Your task to perform on an android device: turn on priority inbox in the gmail app Image 0: 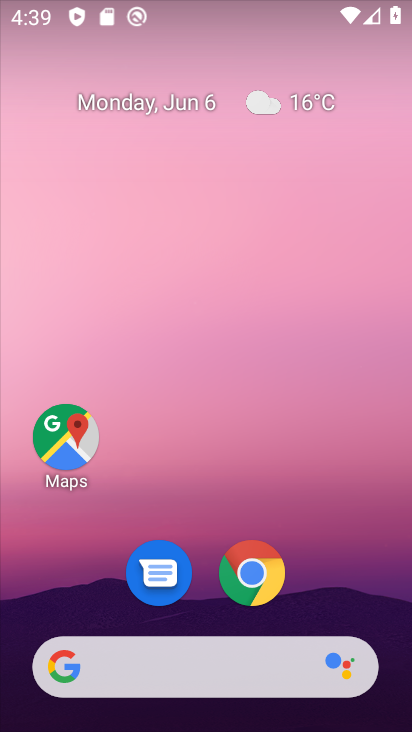
Step 0: drag from (346, 587) to (232, 34)
Your task to perform on an android device: turn on priority inbox in the gmail app Image 1: 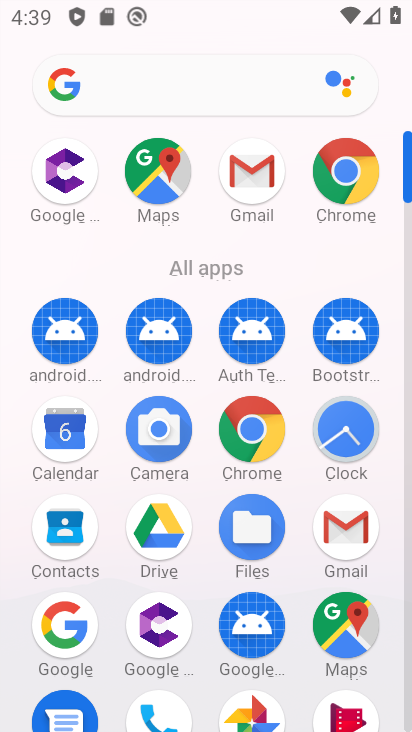
Step 1: click (247, 170)
Your task to perform on an android device: turn on priority inbox in the gmail app Image 2: 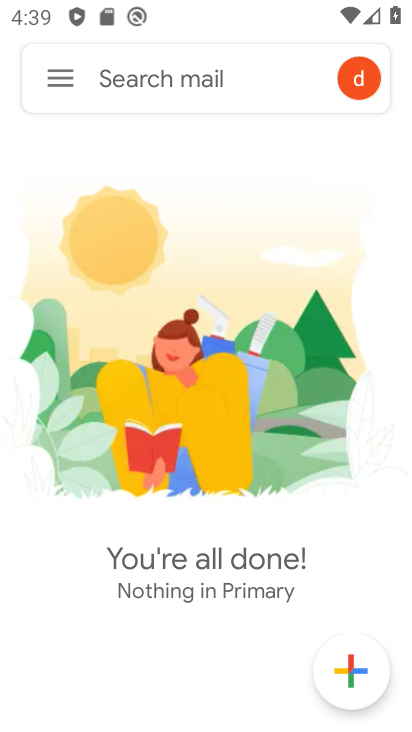
Step 2: click (58, 77)
Your task to perform on an android device: turn on priority inbox in the gmail app Image 3: 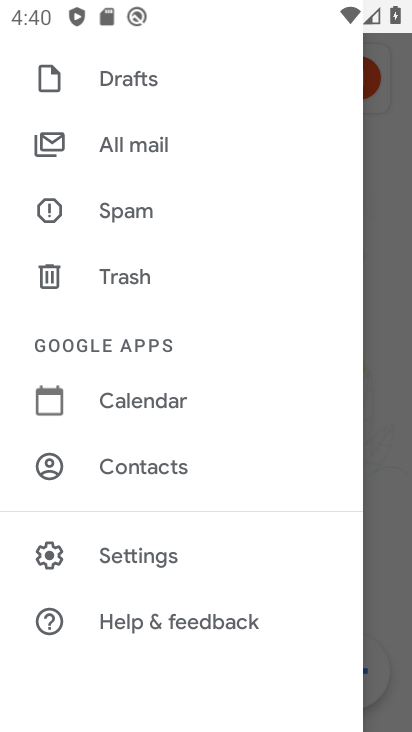
Step 3: click (144, 548)
Your task to perform on an android device: turn on priority inbox in the gmail app Image 4: 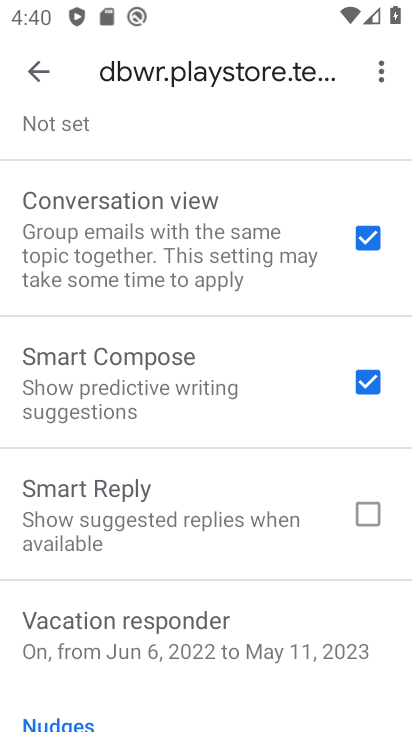
Step 4: drag from (185, 109) to (200, 520)
Your task to perform on an android device: turn on priority inbox in the gmail app Image 5: 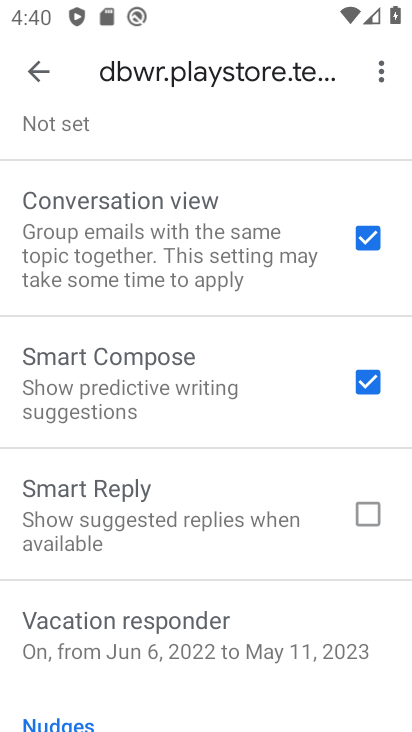
Step 5: drag from (175, 130) to (211, 489)
Your task to perform on an android device: turn on priority inbox in the gmail app Image 6: 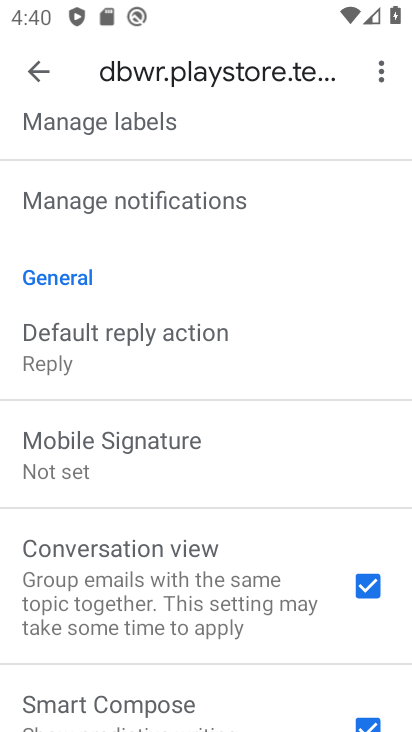
Step 6: drag from (241, 169) to (252, 538)
Your task to perform on an android device: turn on priority inbox in the gmail app Image 7: 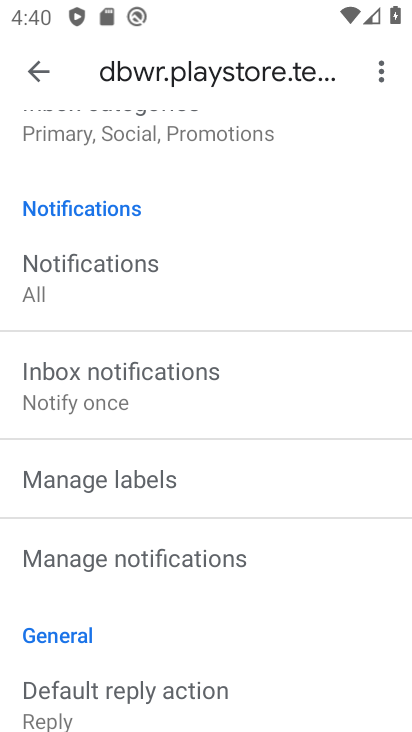
Step 7: drag from (245, 271) to (231, 552)
Your task to perform on an android device: turn on priority inbox in the gmail app Image 8: 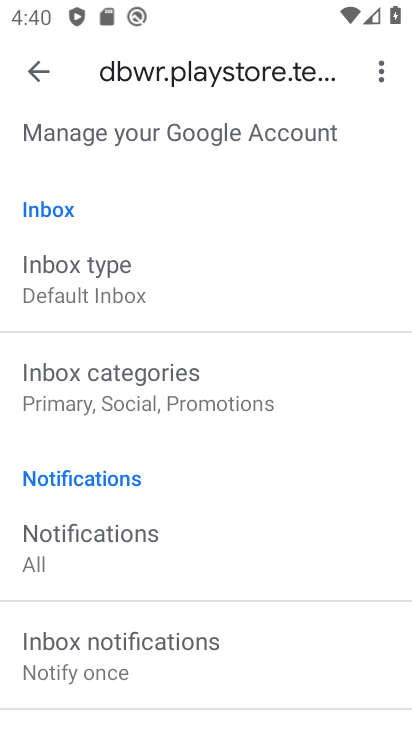
Step 8: click (162, 296)
Your task to perform on an android device: turn on priority inbox in the gmail app Image 9: 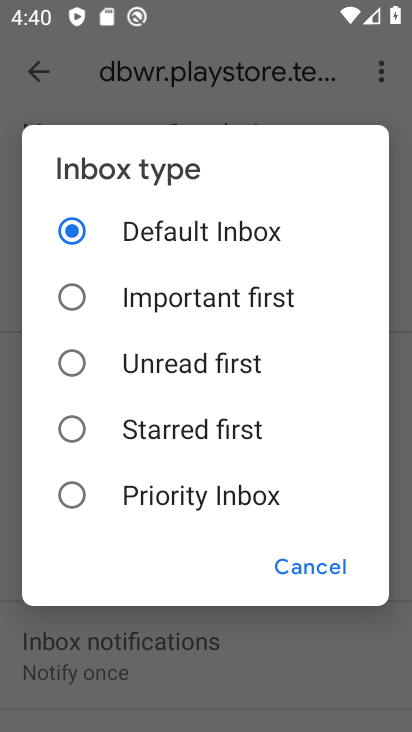
Step 9: click (67, 493)
Your task to perform on an android device: turn on priority inbox in the gmail app Image 10: 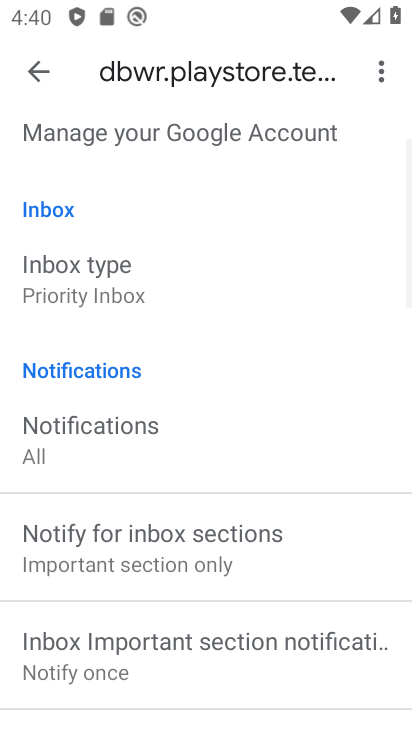
Step 10: task complete